Your task to perform on an android device: turn on notifications settings in the gmail app Image 0: 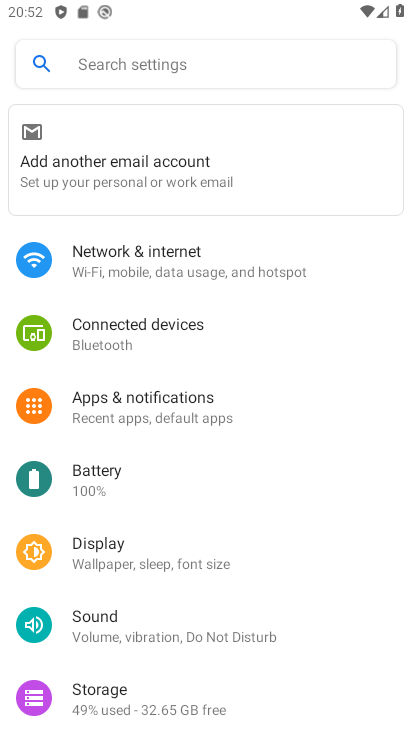
Step 0: press home button
Your task to perform on an android device: turn on notifications settings in the gmail app Image 1: 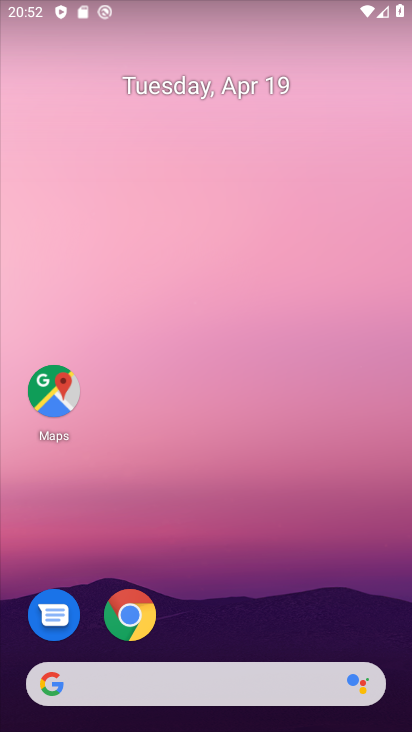
Step 1: drag from (229, 585) to (319, 255)
Your task to perform on an android device: turn on notifications settings in the gmail app Image 2: 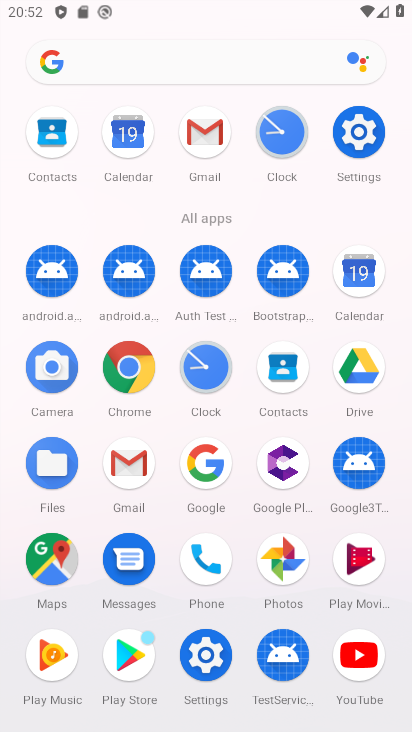
Step 2: click (214, 144)
Your task to perform on an android device: turn on notifications settings in the gmail app Image 3: 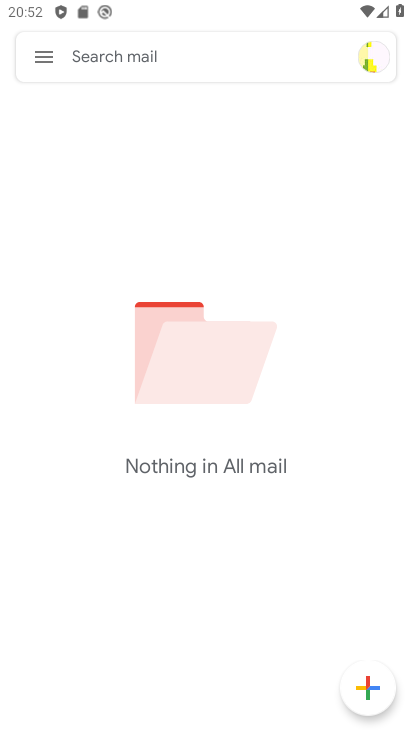
Step 3: click (51, 62)
Your task to perform on an android device: turn on notifications settings in the gmail app Image 4: 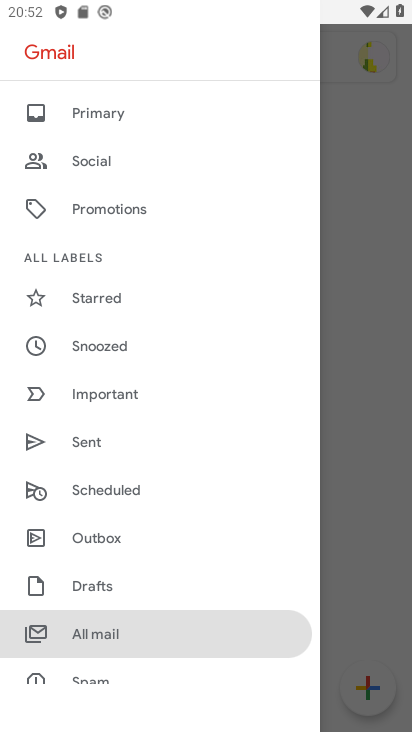
Step 4: drag from (146, 612) to (180, 391)
Your task to perform on an android device: turn on notifications settings in the gmail app Image 5: 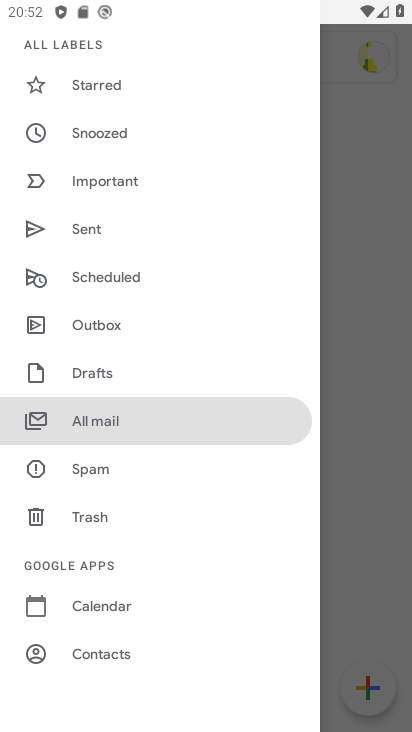
Step 5: drag from (131, 658) to (209, 422)
Your task to perform on an android device: turn on notifications settings in the gmail app Image 6: 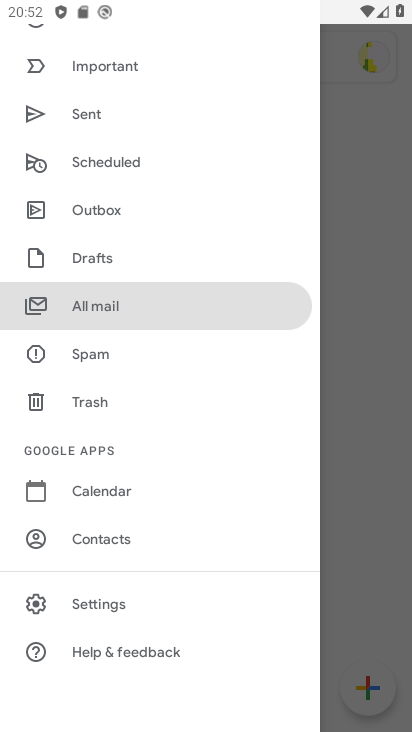
Step 6: click (120, 602)
Your task to perform on an android device: turn on notifications settings in the gmail app Image 7: 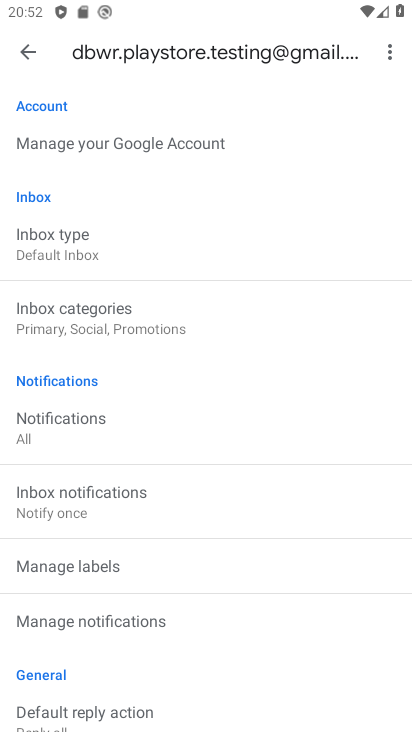
Step 7: click (28, 55)
Your task to perform on an android device: turn on notifications settings in the gmail app Image 8: 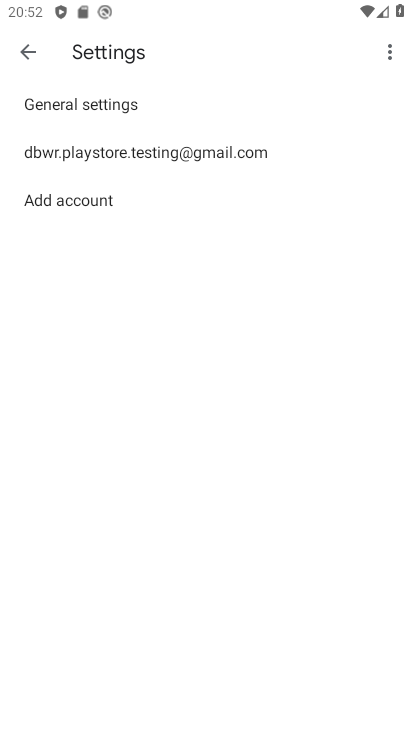
Step 8: click (117, 103)
Your task to perform on an android device: turn on notifications settings in the gmail app Image 9: 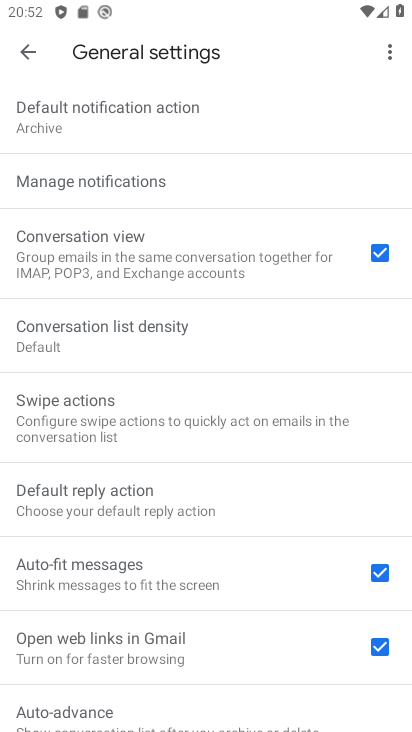
Step 9: click (130, 176)
Your task to perform on an android device: turn on notifications settings in the gmail app Image 10: 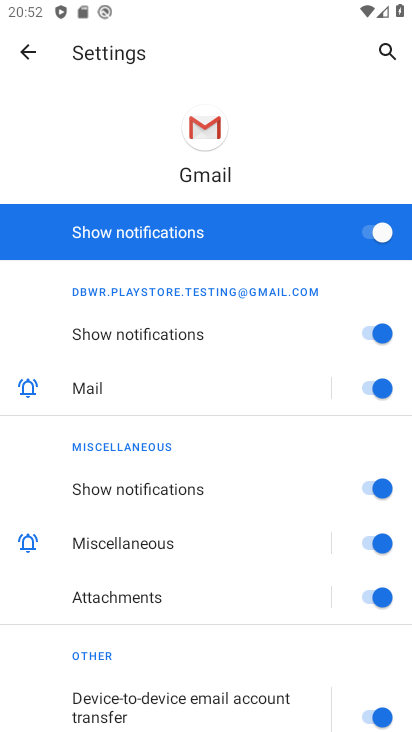
Step 10: task complete